Your task to perform on an android device: Open maps Image 0: 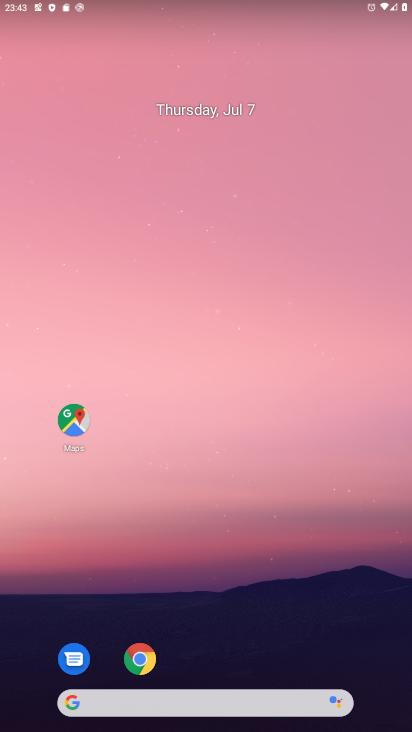
Step 0: click (66, 411)
Your task to perform on an android device: Open maps Image 1: 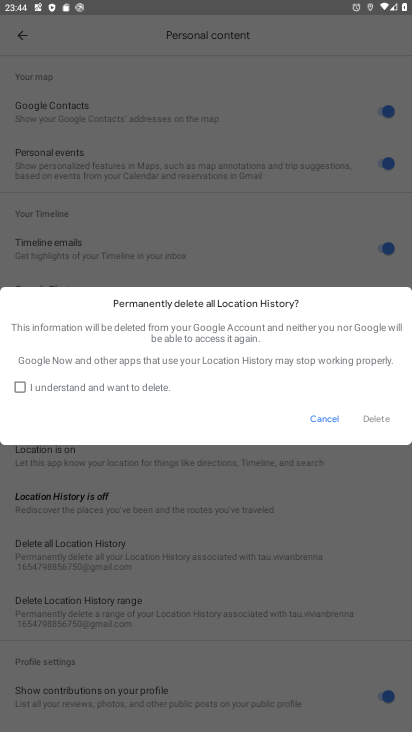
Step 1: click (334, 403)
Your task to perform on an android device: Open maps Image 2: 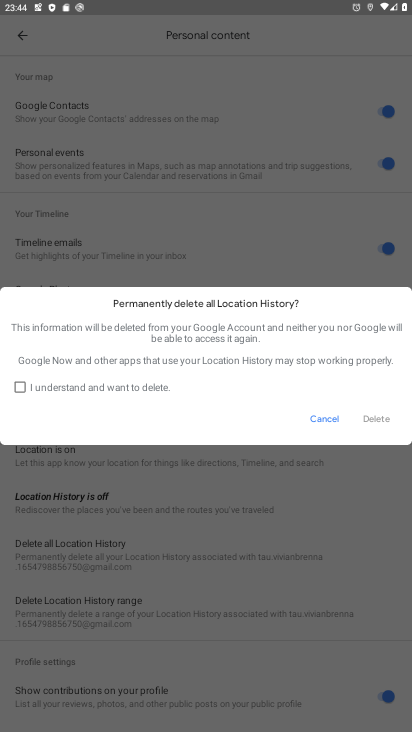
Step 2: click (25, 35)
Your task to perform on an android device: Open maps Image 3: 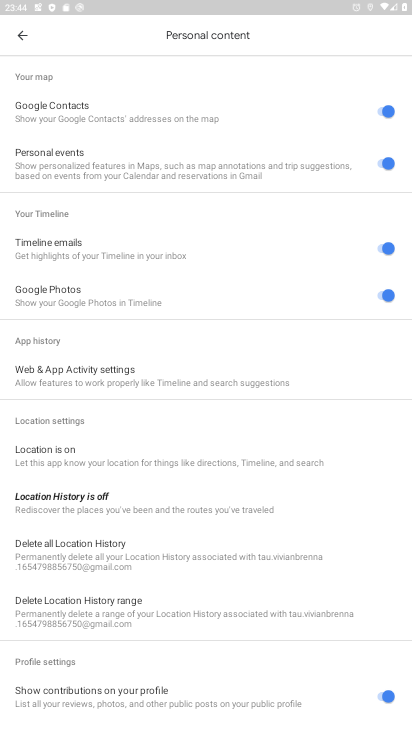
Step 3: click (25, 35)
Your task to perform on an android device: Open maps Image 4: 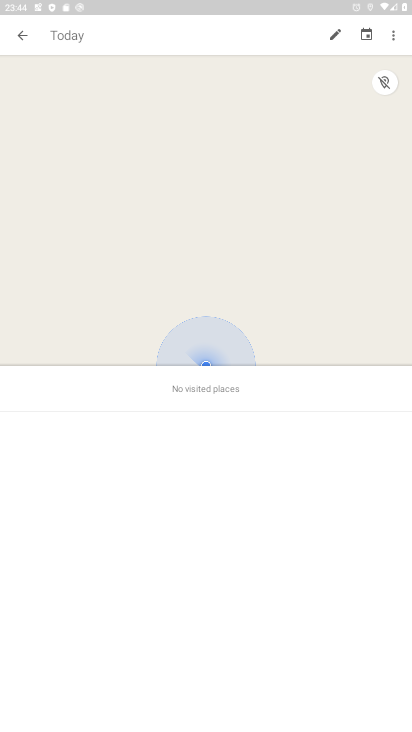
Step 4: click (25, 35)
Your task to perform on an android device: Open maps Image 5: 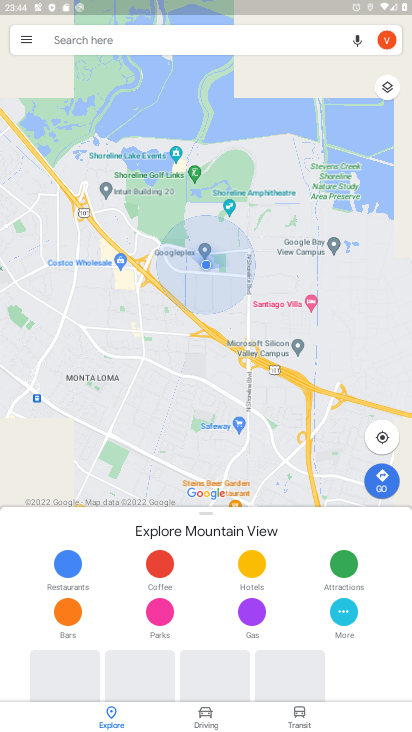
Step 5: task complete